Your task to perform on an android device: What is the capital of China? Image 0: 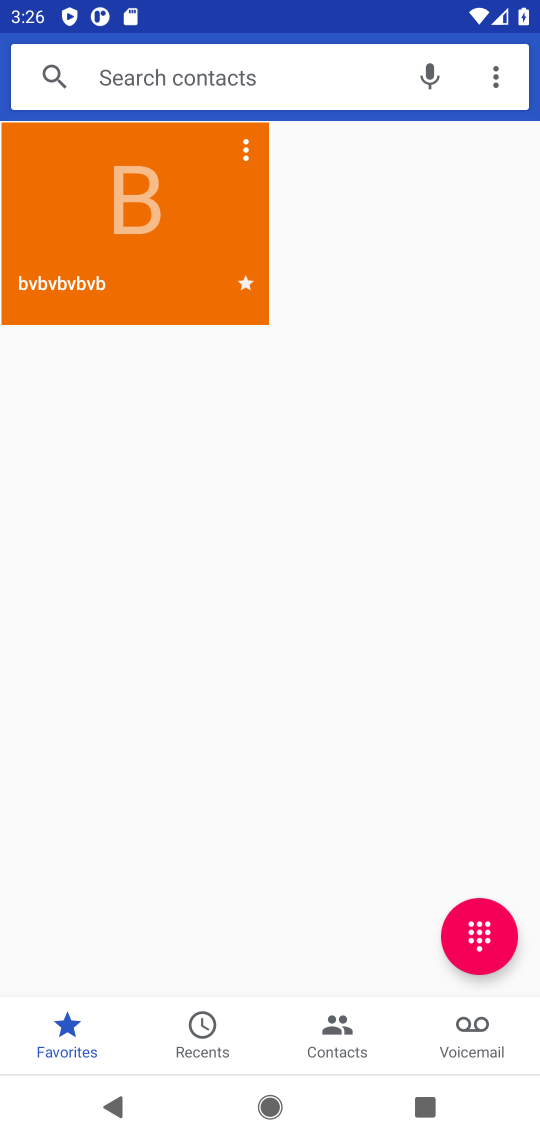
Step 0: press back button
Your task to perform on an android device: What is the capital of China? Image 1: 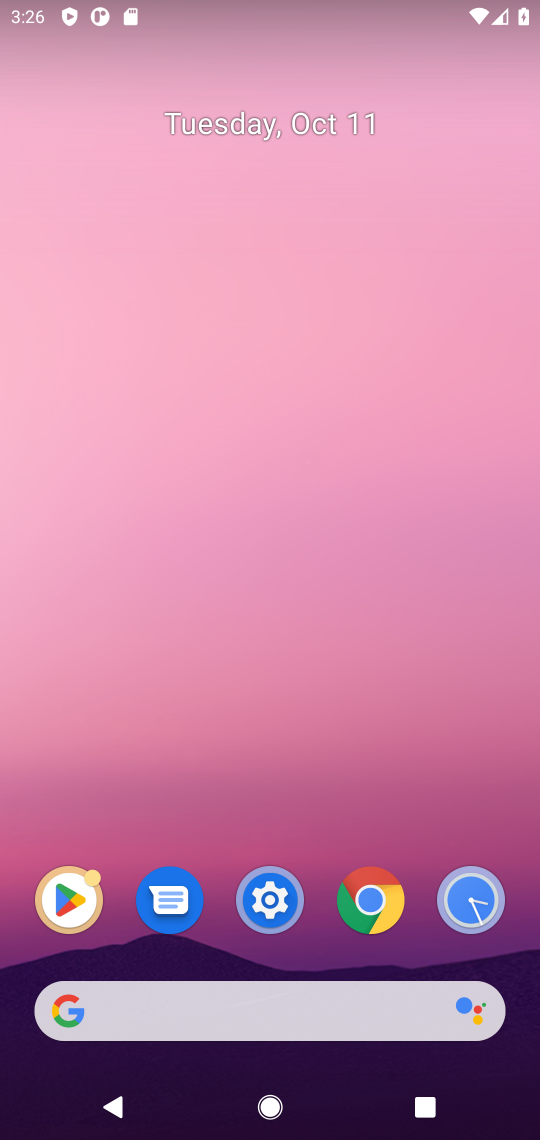
Step 1: click (231, 1013)
Your task to perform on an android device: What is the capital of China? Image 2: 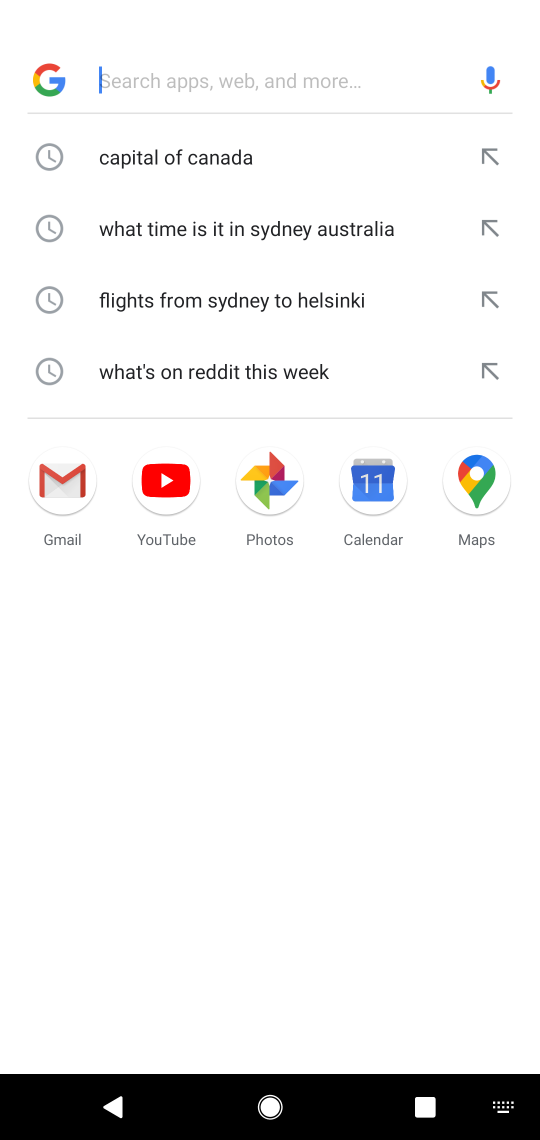
Step 2: type "the capital of China?"
Your task to perform on an android device: What is the capital of China? Image 3: 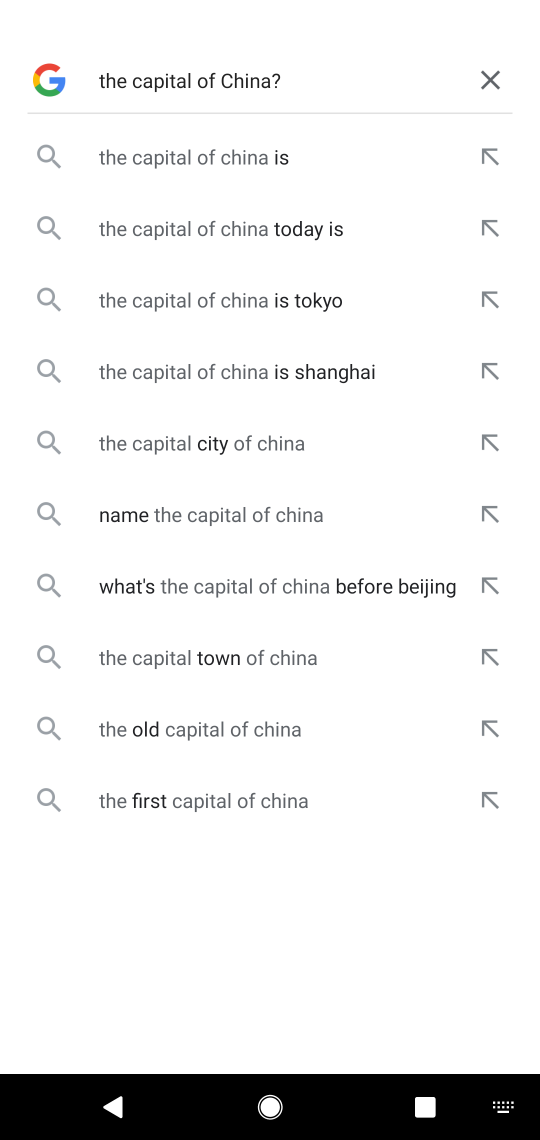
Step 3: click (240, 160)
Your task to perform on an android device: What is the capital of China? Image 4: 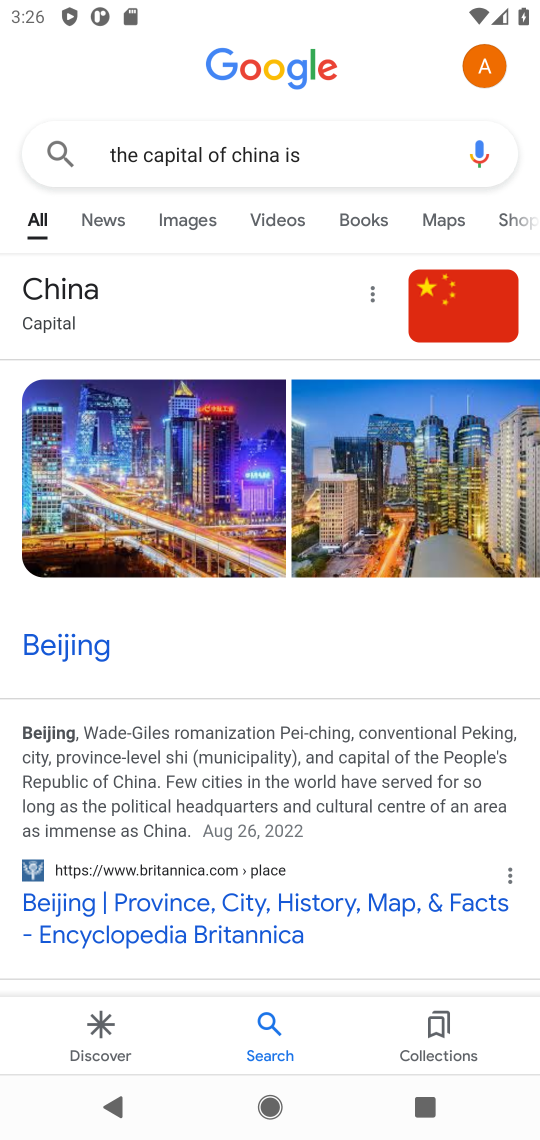
Step 4: drag from (106, 674) to (248, 216)
Your task to perform on an android device: What is the capital of China? Image 5: 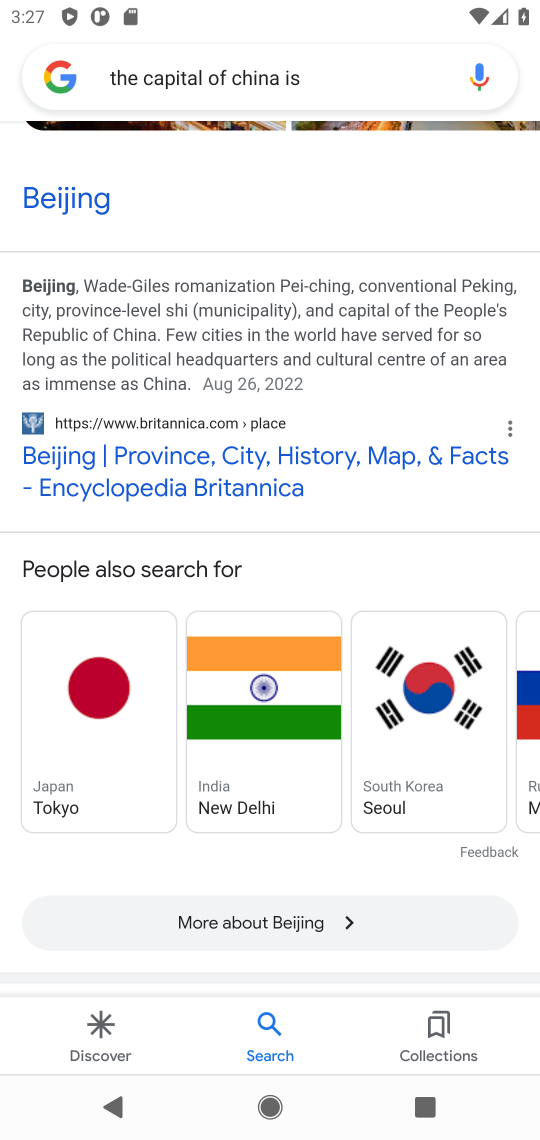
Step 5: drag from (343, 819) to (326, 512)
Your task to perform on an android device: What is the capital of China? Image 6: 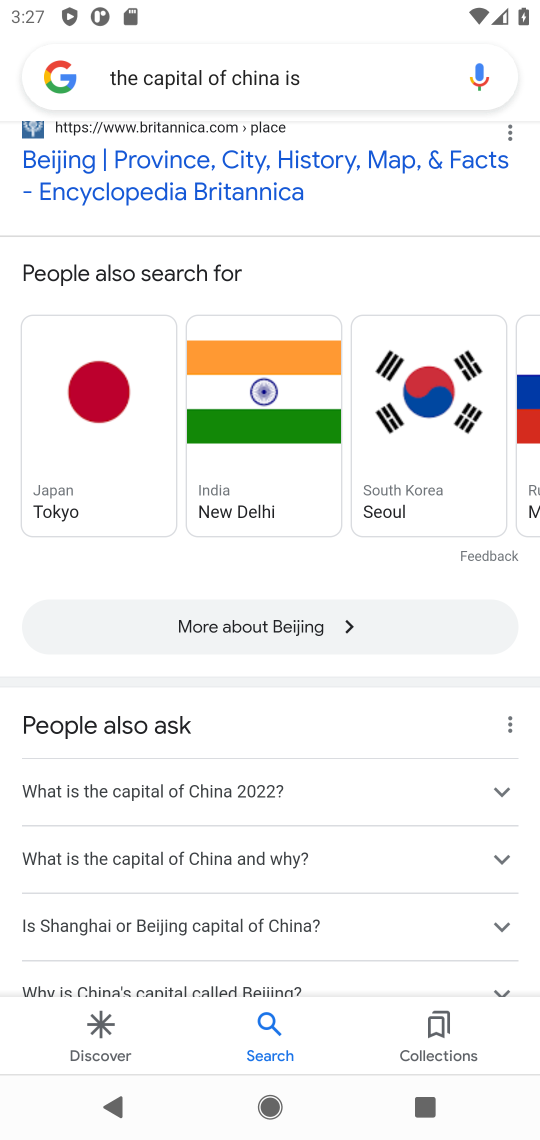
Step 6: drag from (431, 865) to (426, 680)
Your task to perform on an android device: What is the capital of China? Image 7: 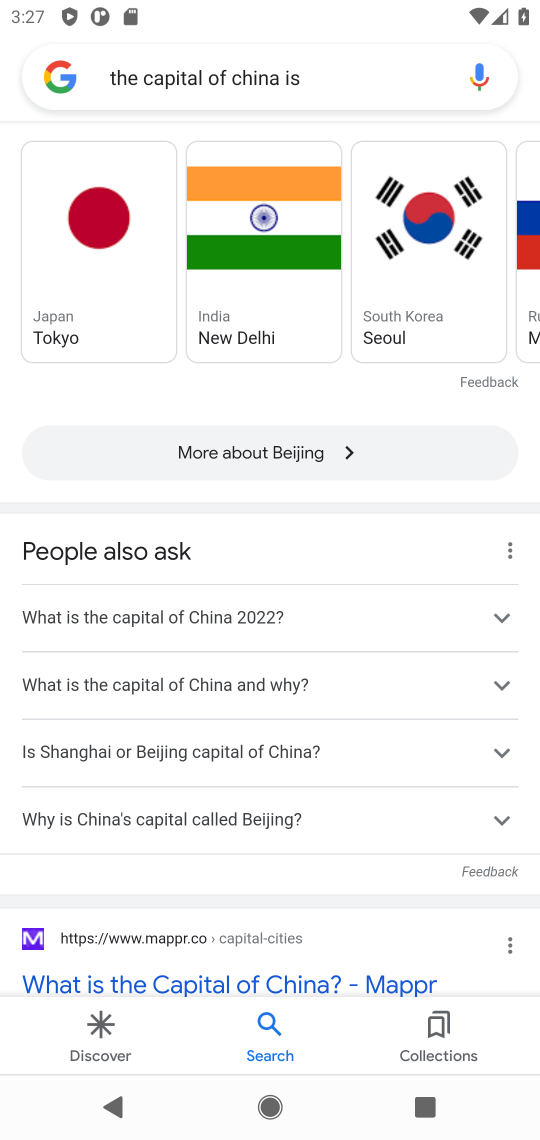
Step 7: click (500, 612)
Your task to perform on an android device: What is the capital of China? Image 8: 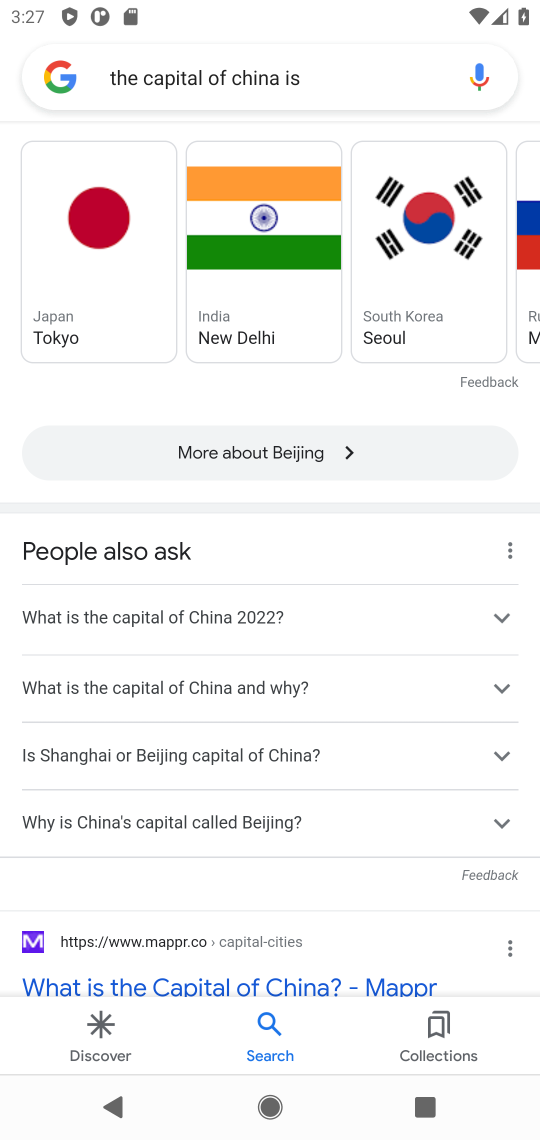
Step 8: click (500, 612)
Your task to perform on an android device: What is the capital of China? Image 9: 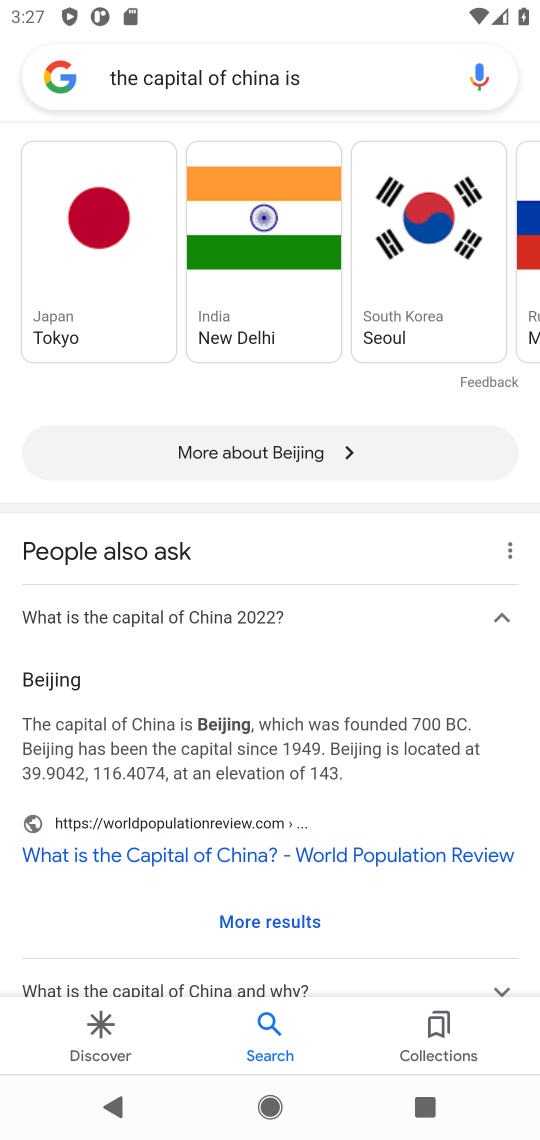
Step 9: click (500, 612)
Your task to perform on an android device: What is the capital of China? Image 10: 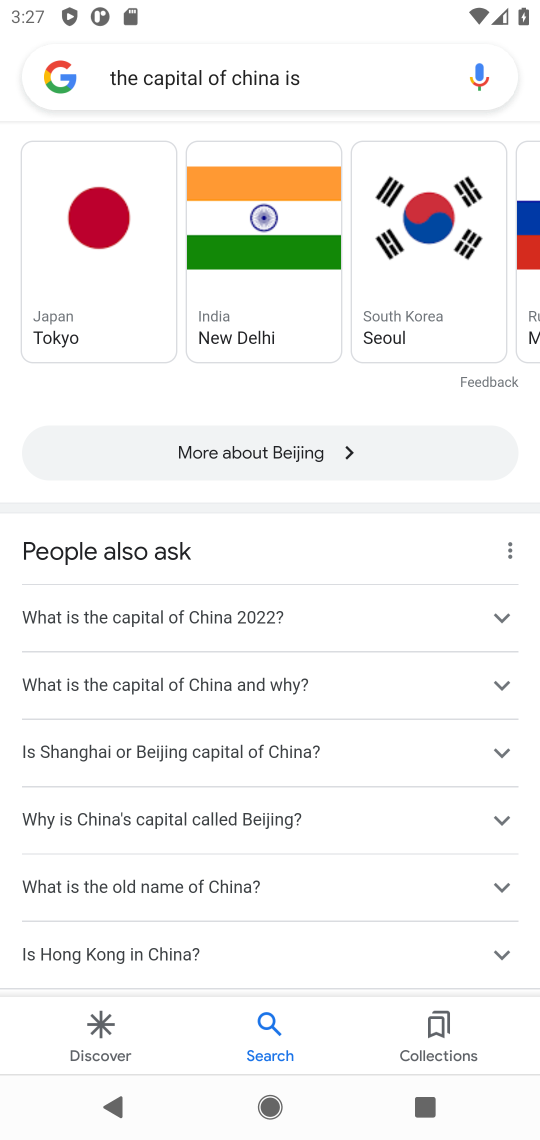
Step 10: click (500, 612)
Your task to perform on an android device: What is the capital of China? Image 11: 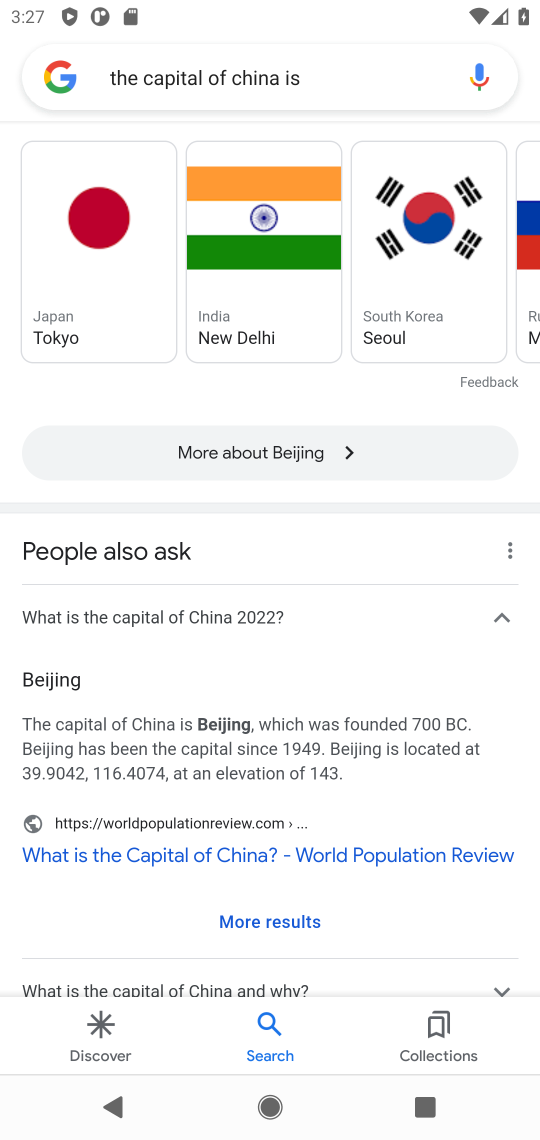
Step 11: click (500, 612)
Your task to perform on an android device: What is the capital of China? Image 12: 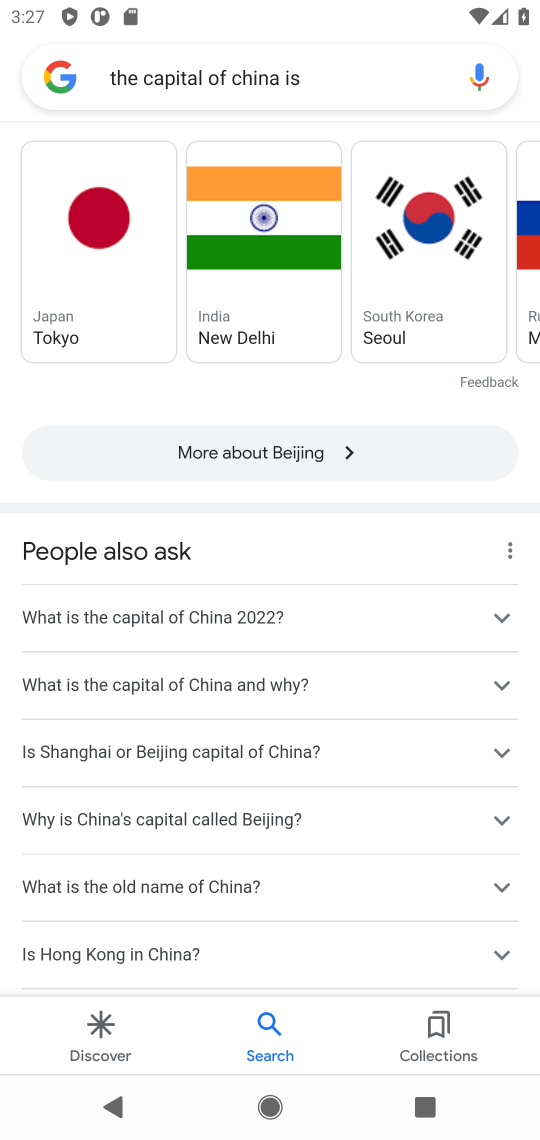
Step 12: click (500, 612)
Your task to perform on an android device: What is the capital of China? Image 13: 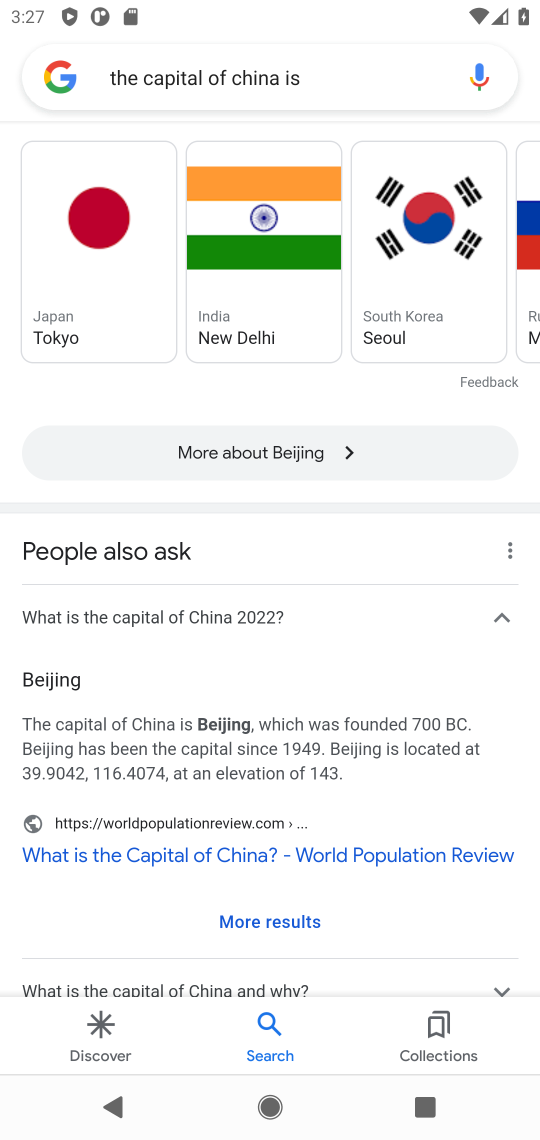
Step 13: click (500, 612)
Your task to perform on an android device: What is the capital of China? Image 14: 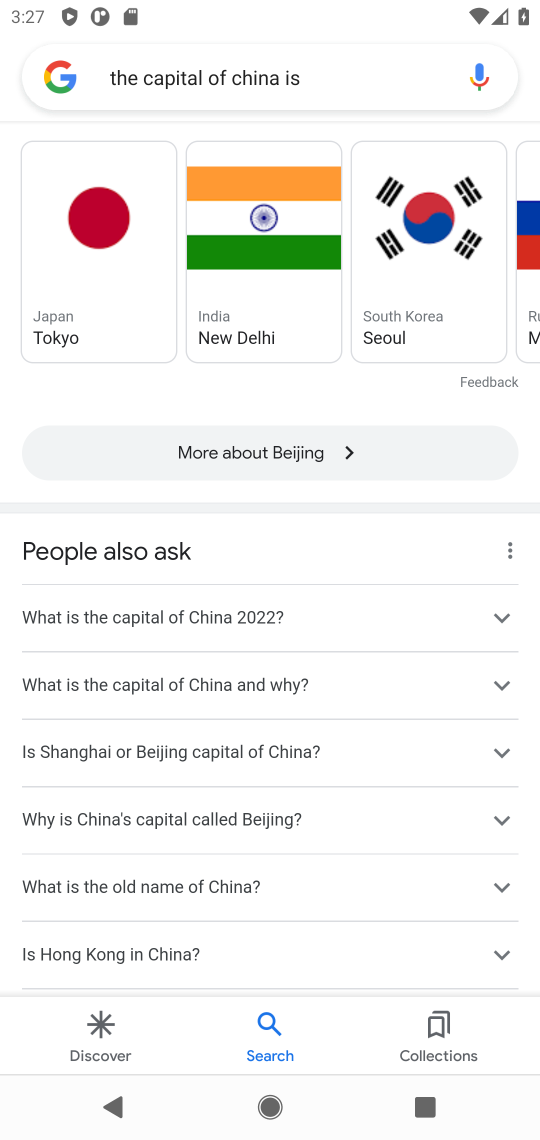
Step 14: click (500, 612)
Your task to perform on an android device: What is the capital of China? Image 15: 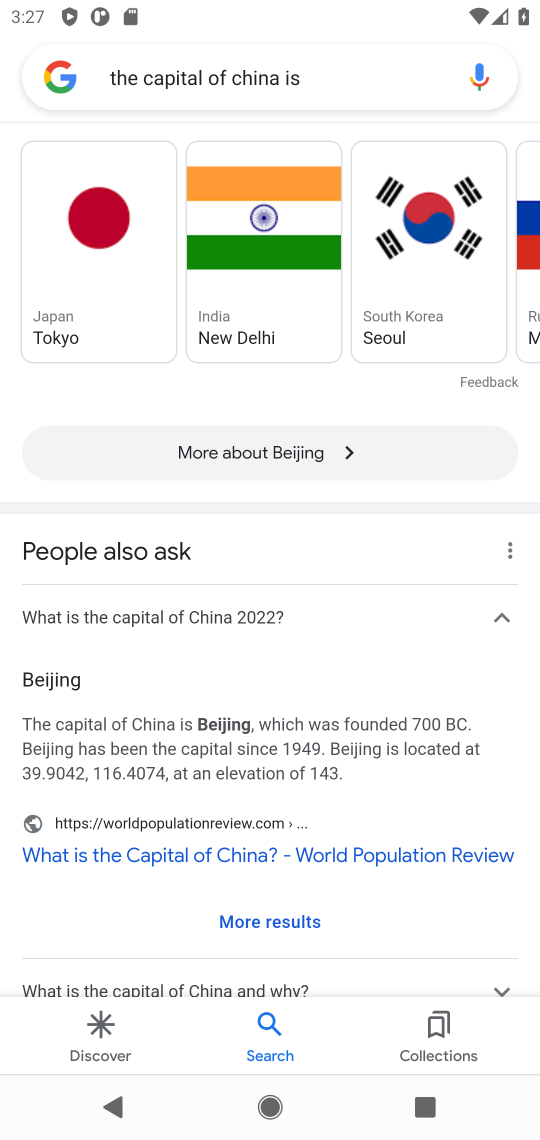
Step 15: click (500, 612)
Your task to perform on an android device: What is the capital of China? Image 16: 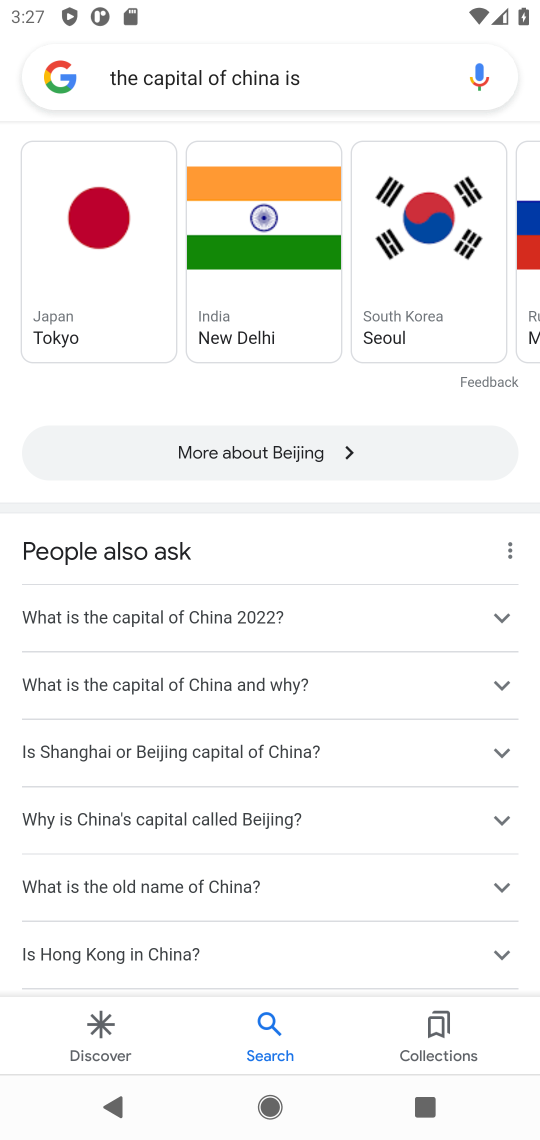
Step 16: click (500, 612)
Your task to perform on an android device: What is the capital of China? Image 17: 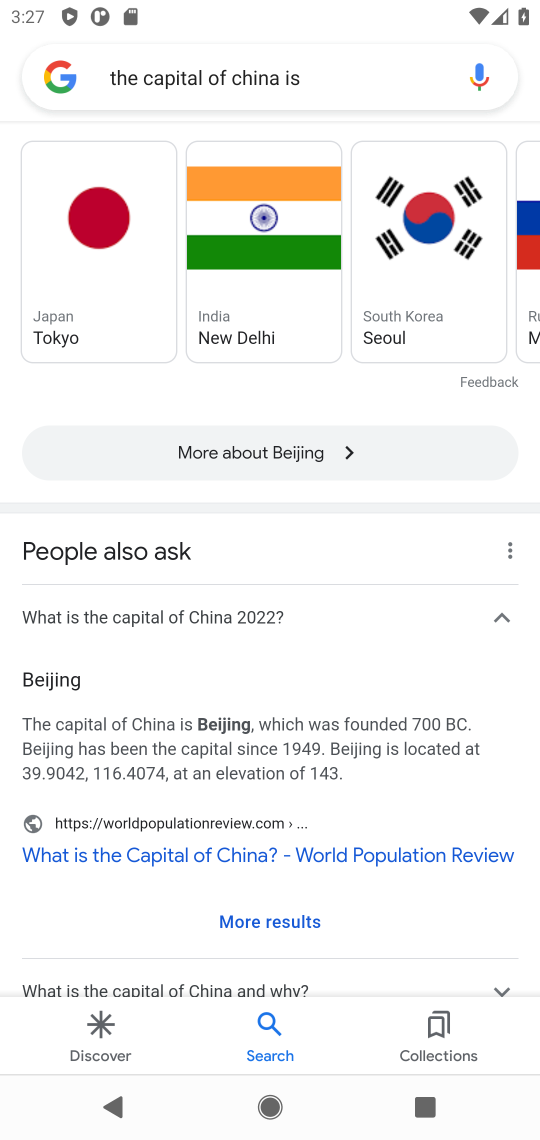
Step 17: click (500, 612)
Your task to perform on an android device: What is the capital of China? Image 18: 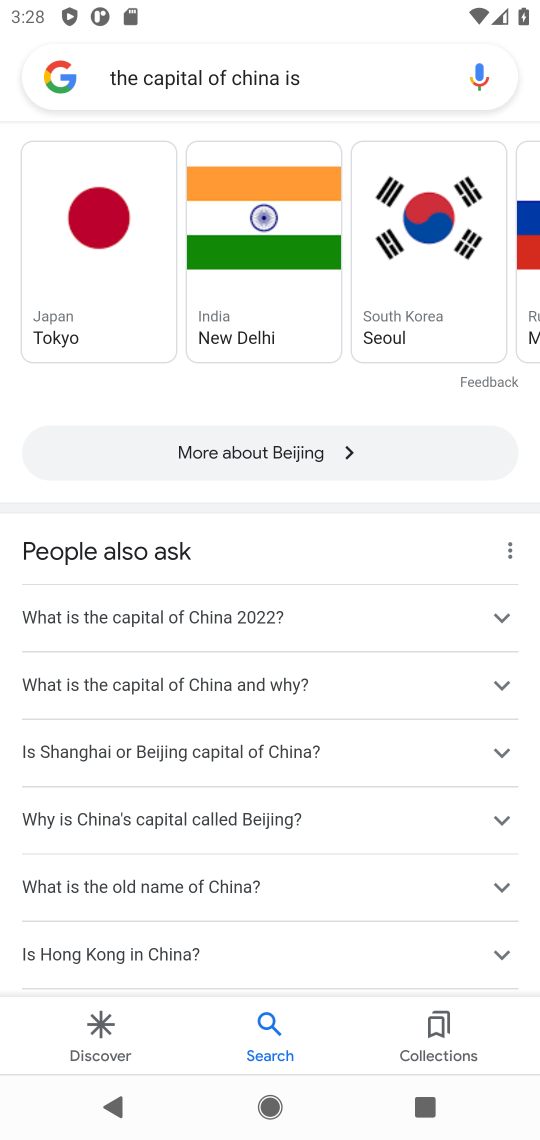
Step 18: click (500, 612)
Your task to perform on an android device: What is the capital of China? Image 19: 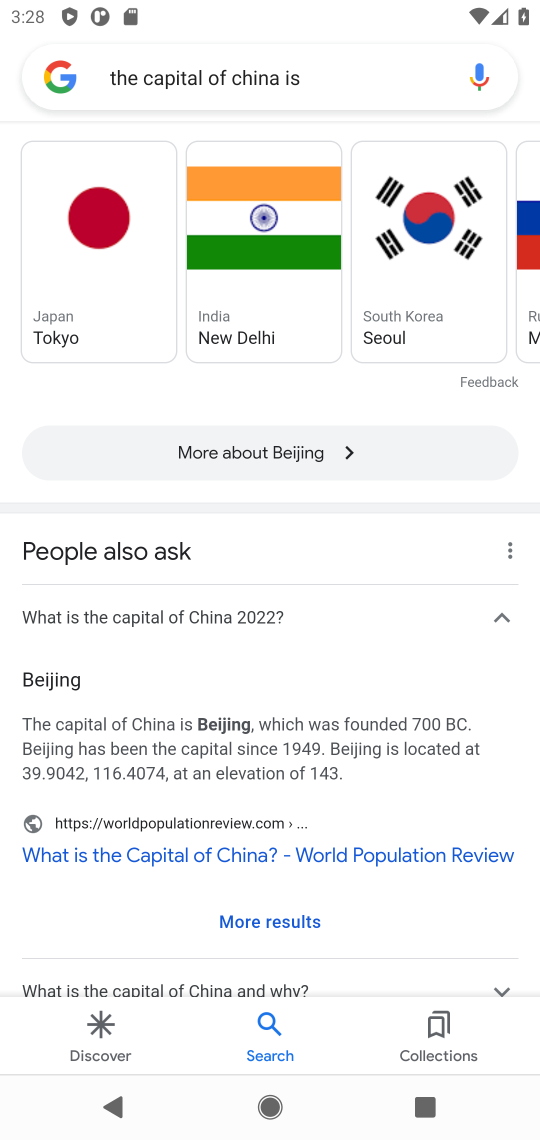
Step 19: click (500, 612)
Your task to perform on an android device: What is the capital of China? Image 20: 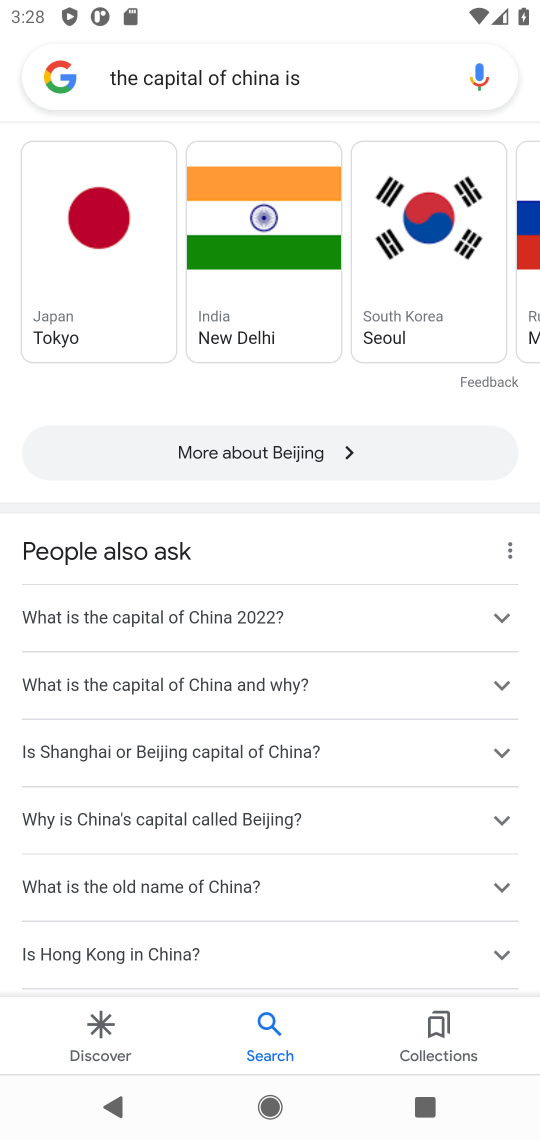
Step 20: click (501, 611)
Your task to perform on an android device: What is the capital of China? Image 21: 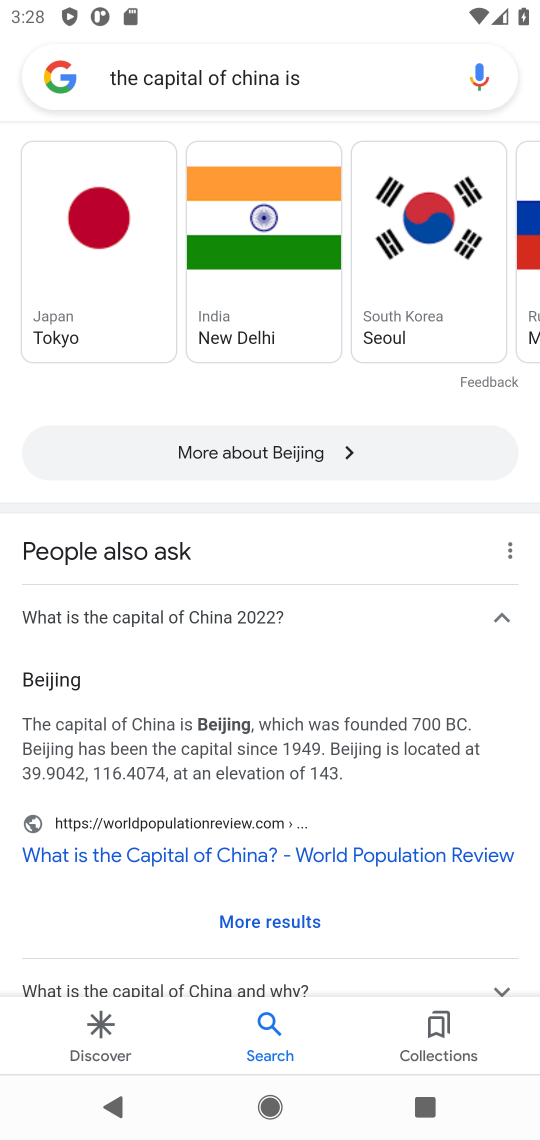
Step 21: click (501, 611)
Your task to perform on an android device: What is the capital of China? Image 22: 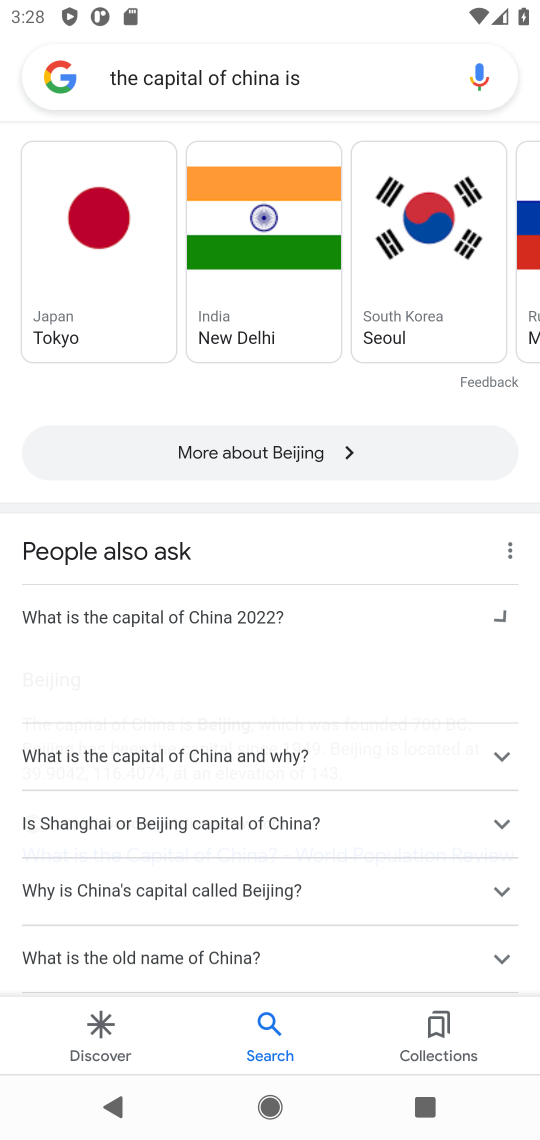
Step 22: click (501, 611)
Your task to perform on an android device: What is the capital of China? Image 23: 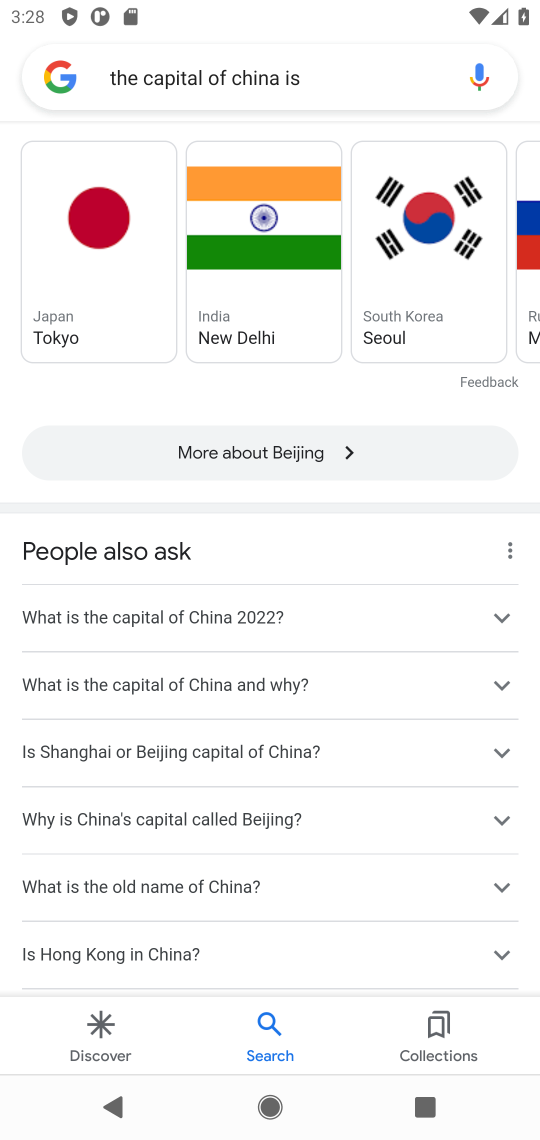
Step 23: click (501, 611)
Your task to perform on an android device: What is the capital of China? Image 24: 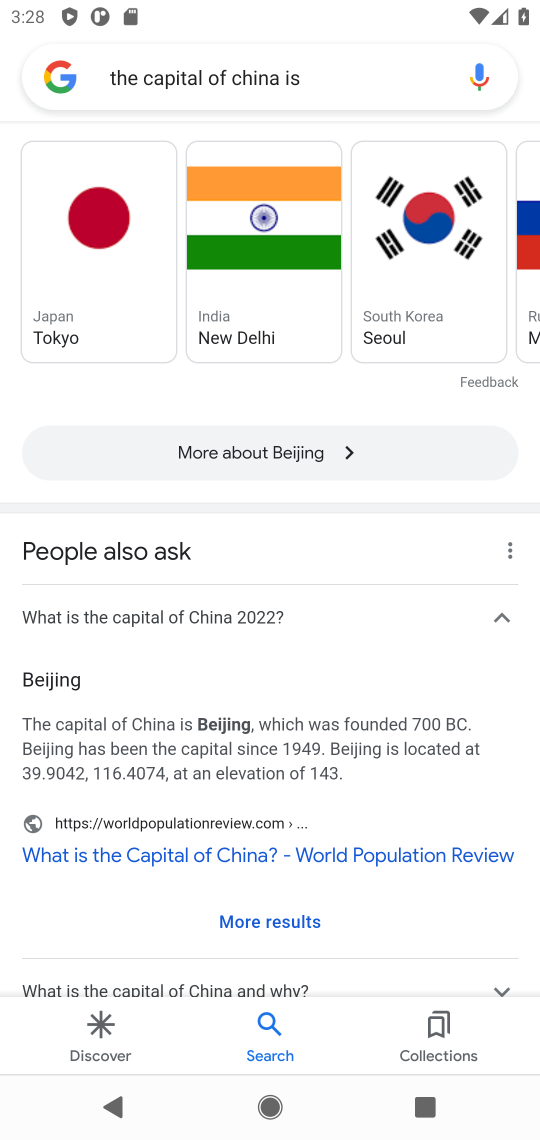
Step 24: click (501, 611)
Your task to perform on an android device: What is the capital of China? Image 25: 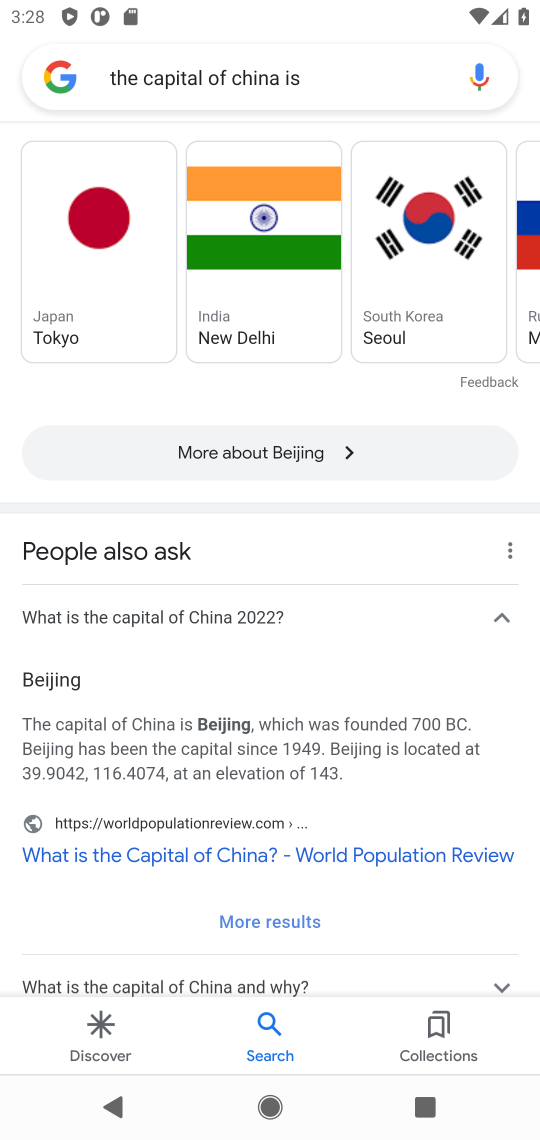
Step 25: click (501, 611)
Your task to perform on an android device: What is the capital of China? Image 26: 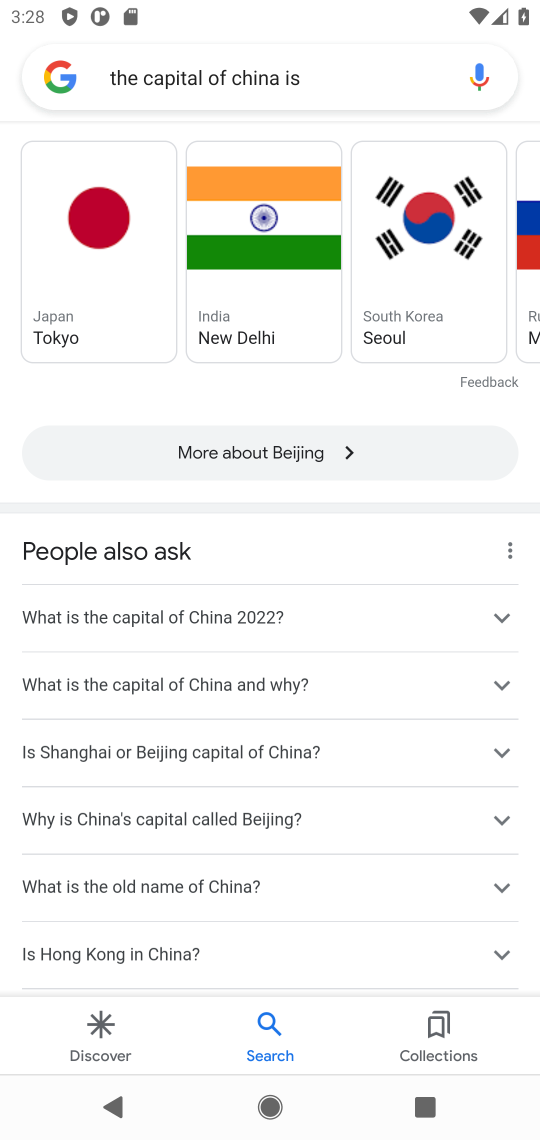
Step 26: click (501, 611)
Your task to perform on an android device: What is the capital of China? Image 27: 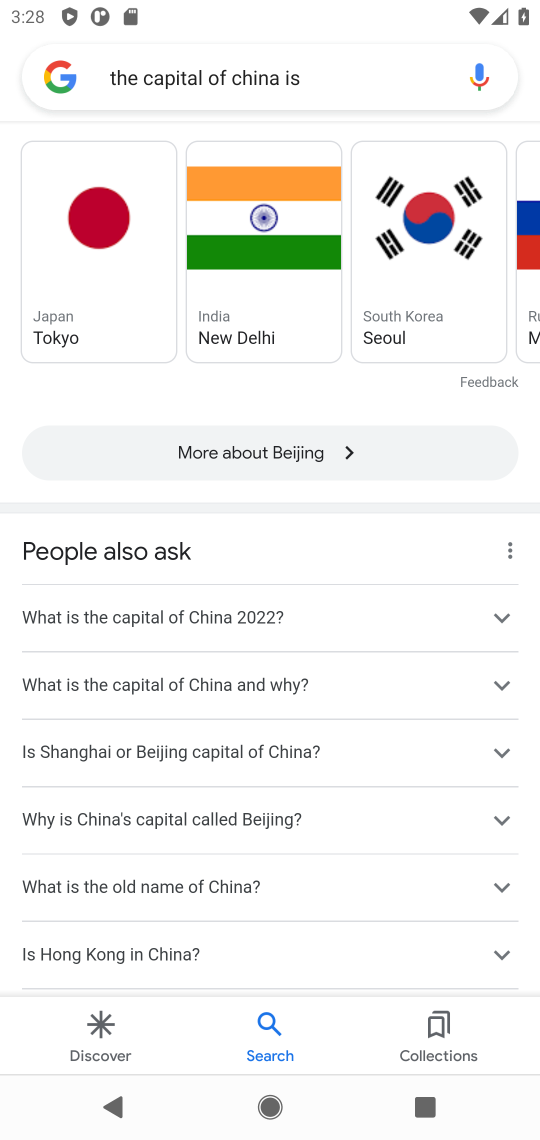
Step 27: click (501, 611)
Your task to perform on an android device: What is the capital of China? Image 28: 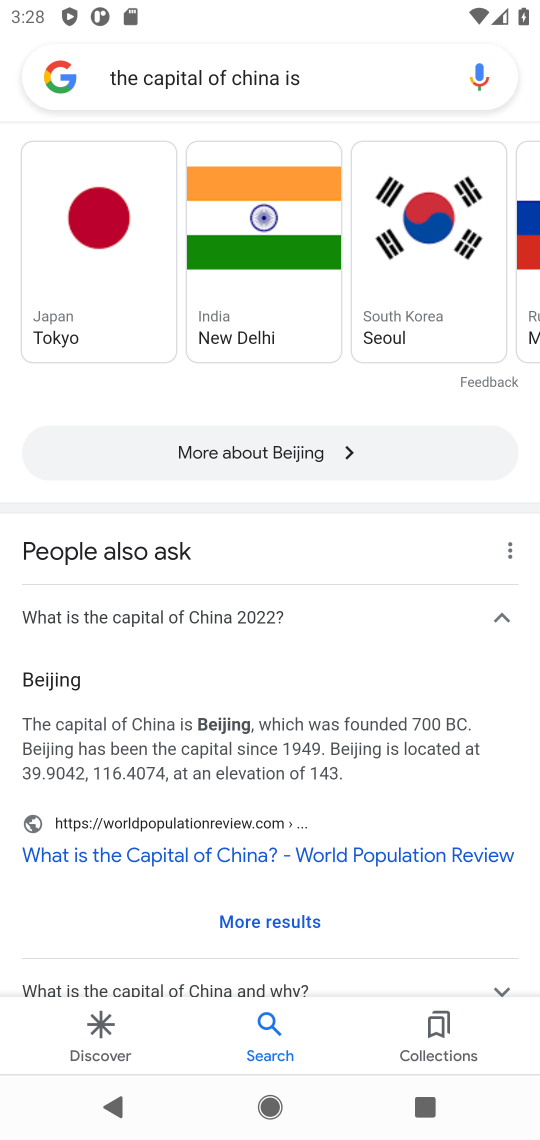
Step 28: click (501, 611)
Your task to perform on an android device: What is the capital of China? Image 29: 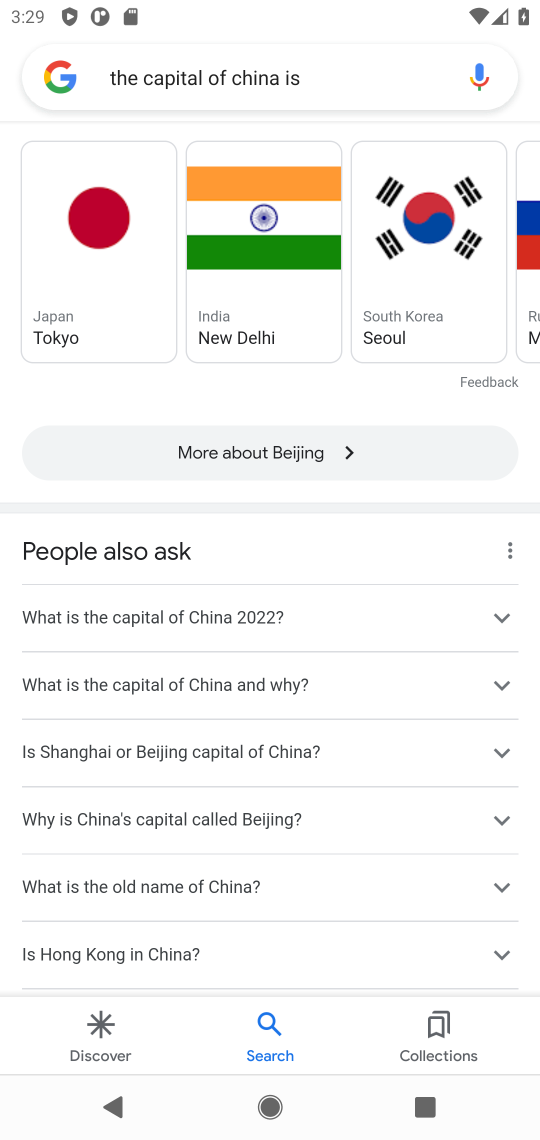
Step 29: click (501, 611)
Your task to perform on an android device: What is the capital of China? Image 30: 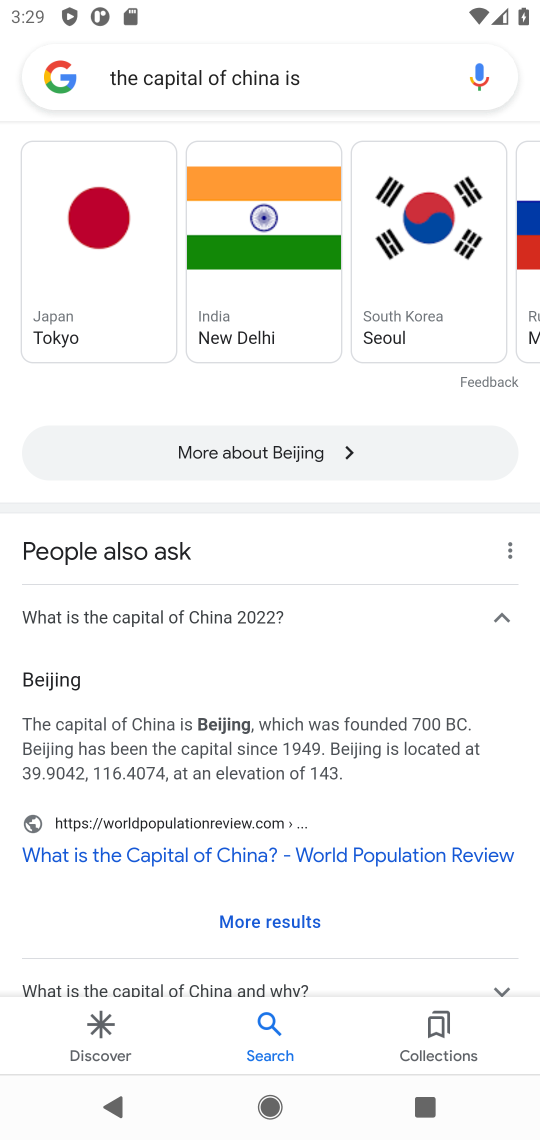
Step 30: click (501, 611)
Your task to perform on an android device: What is the capital of China? Image 31: 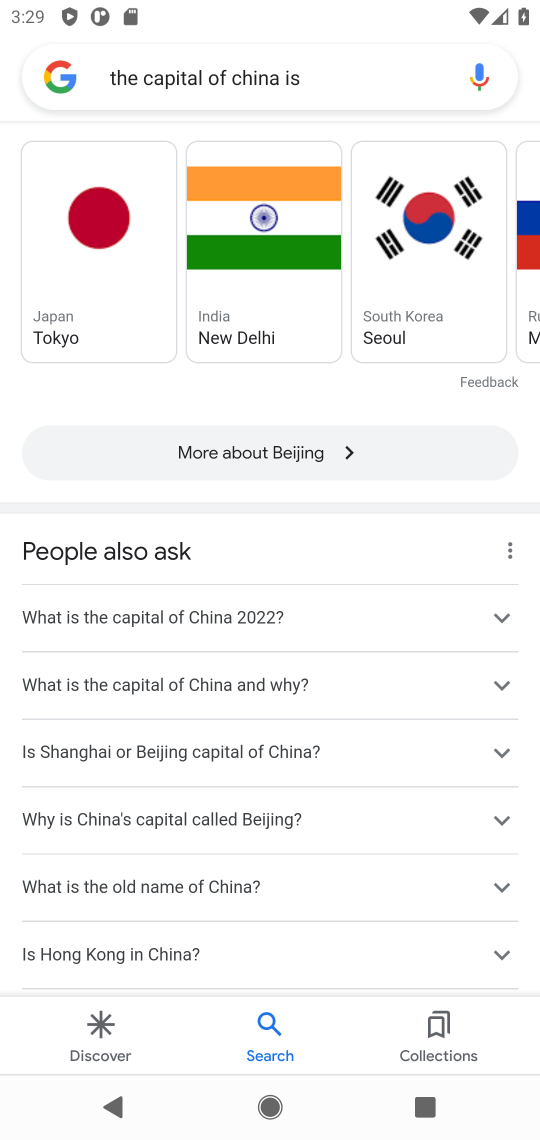
Step 31: click (501, 611)
Your task to perform on an android device: What is the capital of China? Image 32: 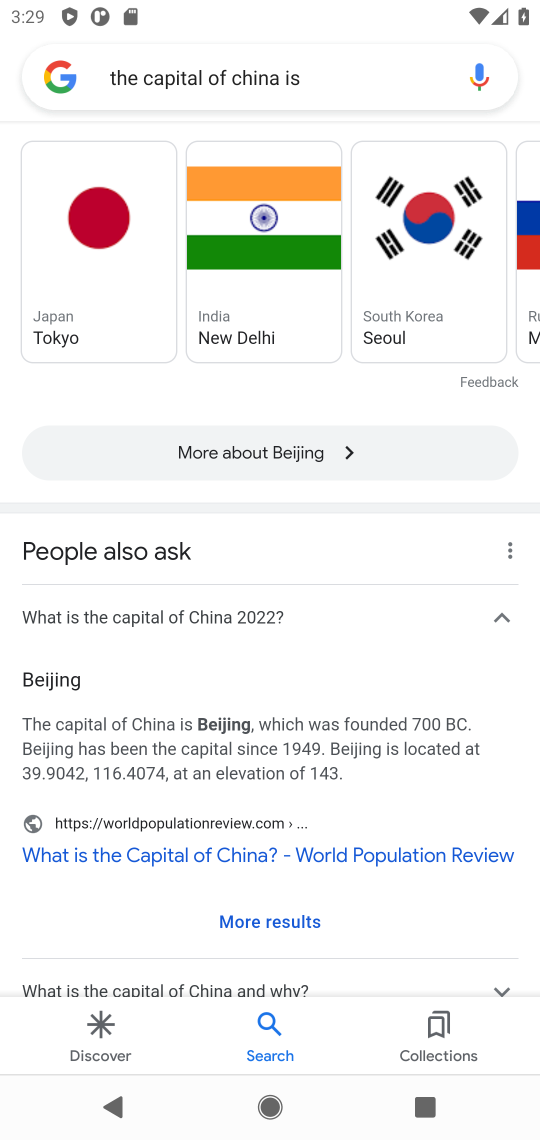
Step 32: task complete